Your task to perform on an android device: add a label to a message in the gmail app Image 0: 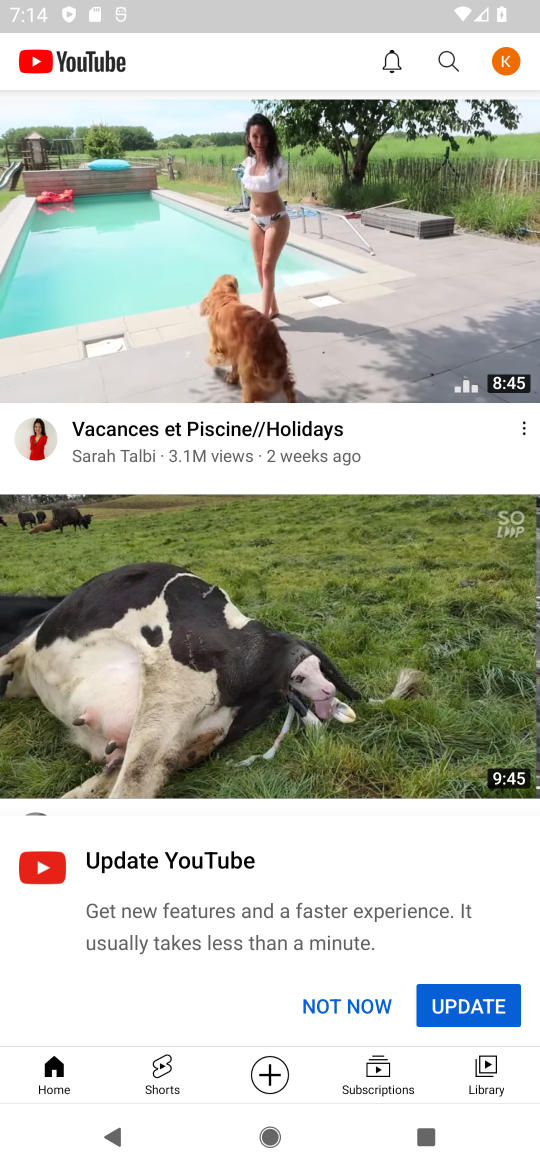
Step 0: press home button
Your task to perform on an android device: add a label to a message in the gmail app Image 1: 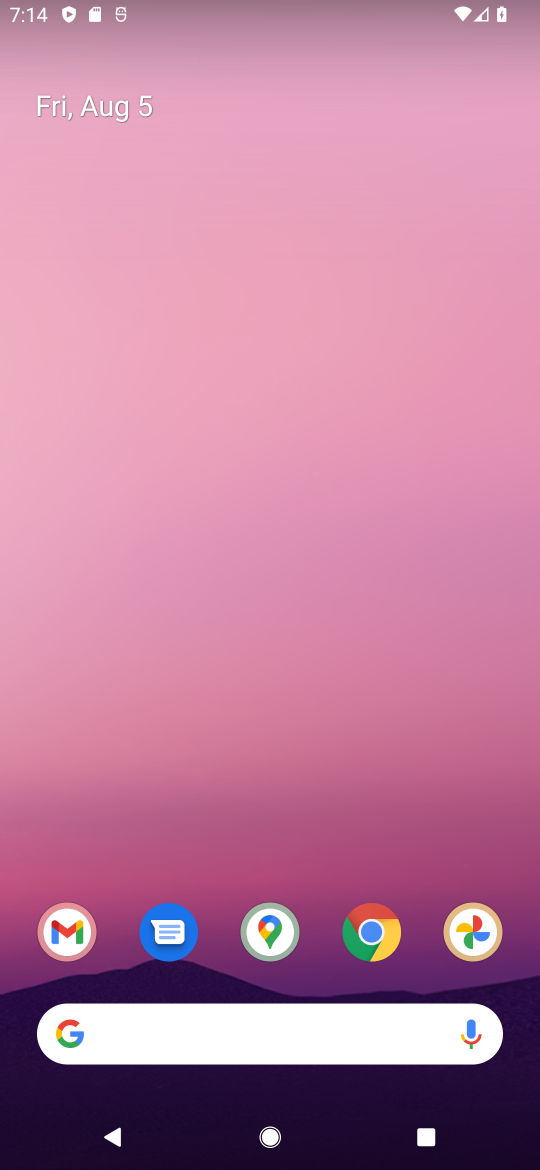
Step 1: drag from (353, 664) to (362, 110)
Your task to perform on an android device: add a label to a message in the gmail app Image 2: 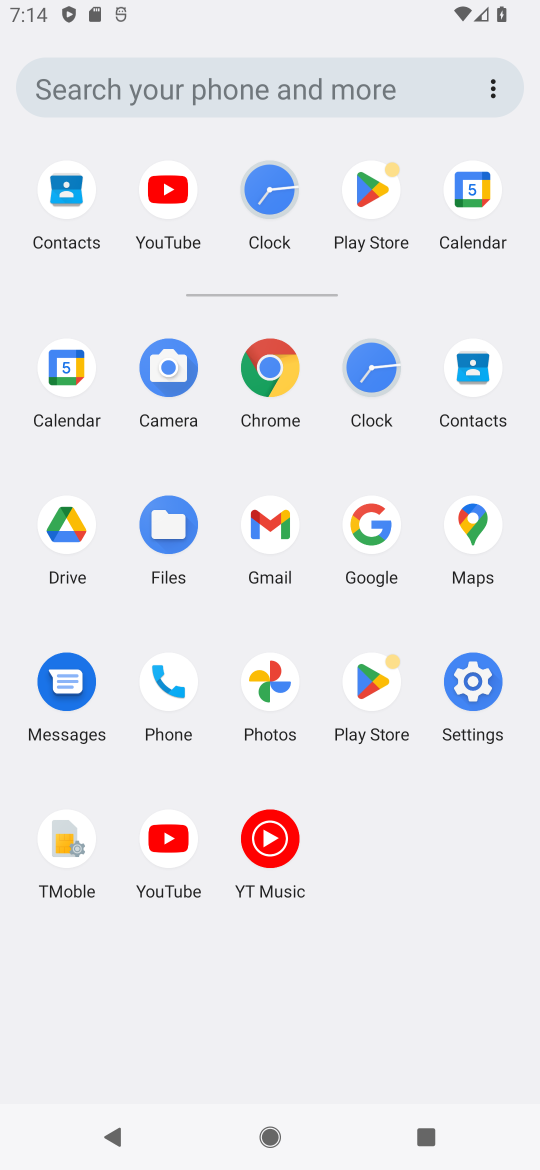
Step 2: click (271, 524)
Your task to perform on an android device: add a label to a message in the gmail app Image 3: 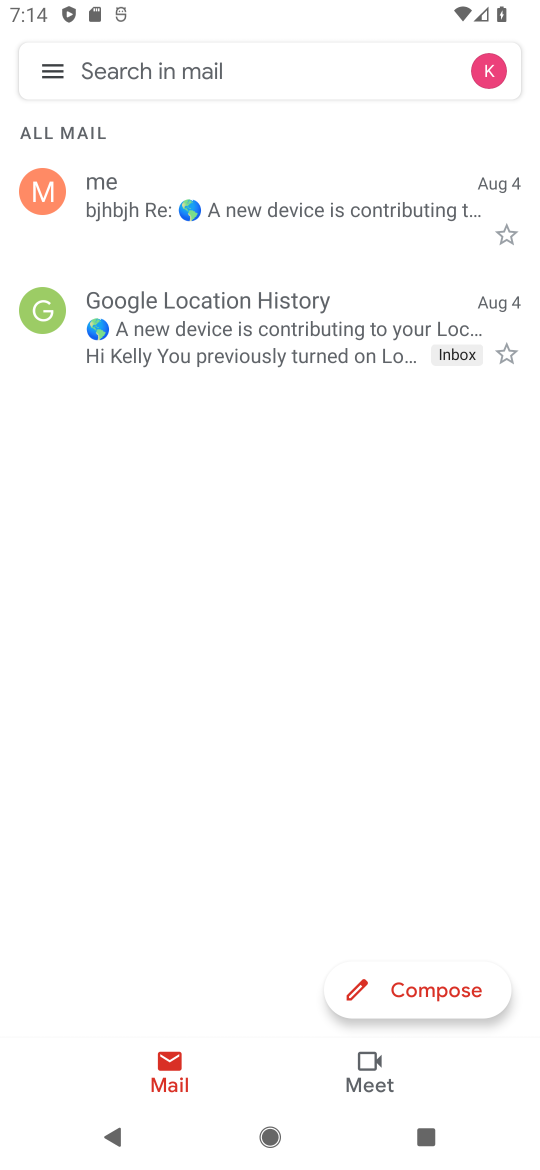
Step 3: click (213, 313)
Your task to perform on an android device: add a label to a message in the gmail app Image 4: 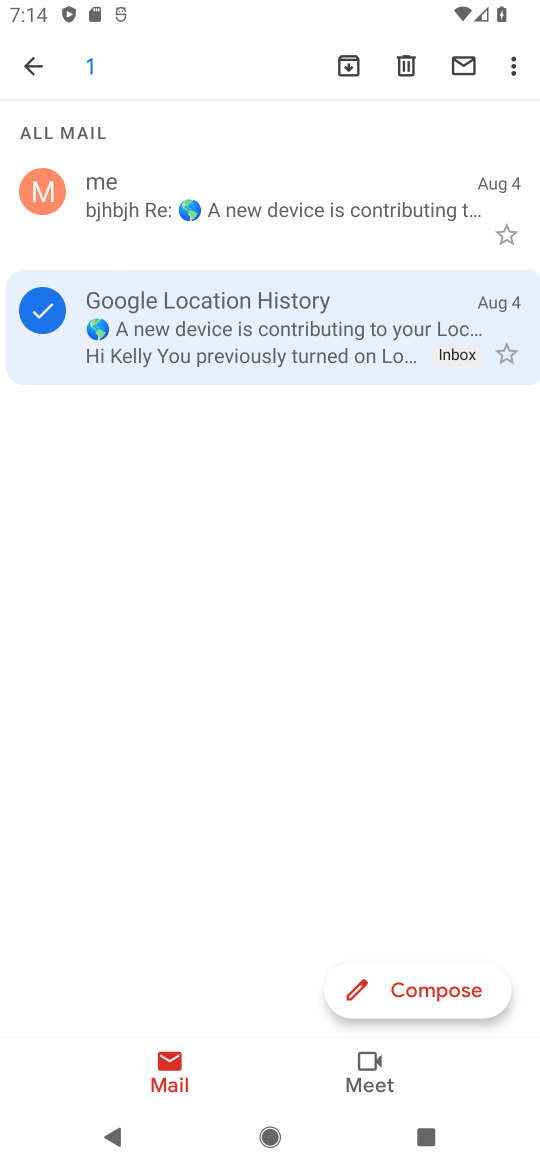
Step 4: click (519, 63)
Your task to perform on an android device: add a label to a message in the gmail app Image 5: 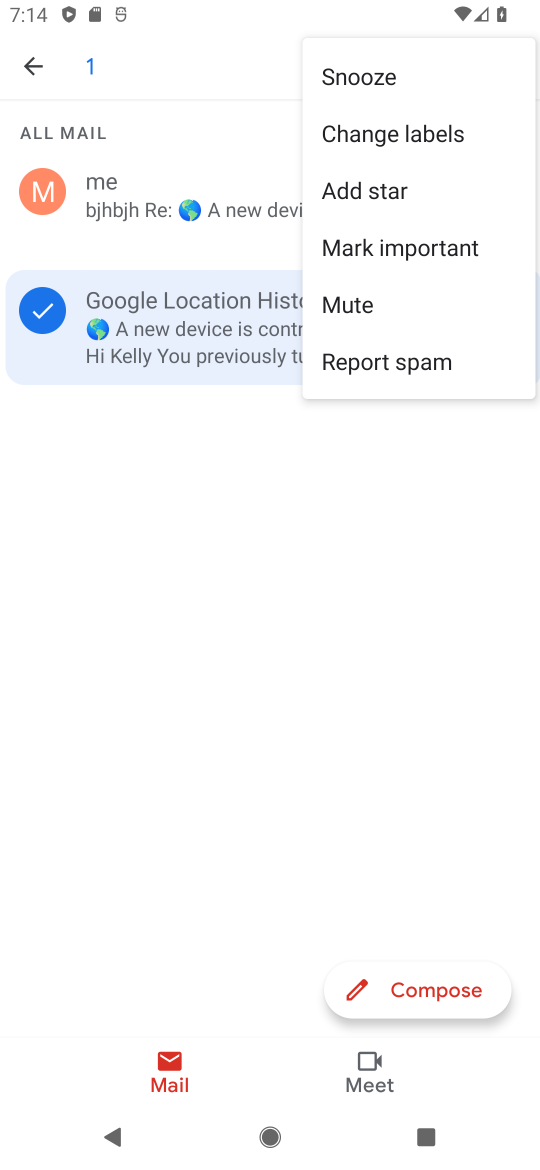
Step 5: task complete